Your task to perform on an android device: View the shopping cart on costco. Search for dell alienware on costco, select the first entry, add it to the cart, then select checkout. Image 0: 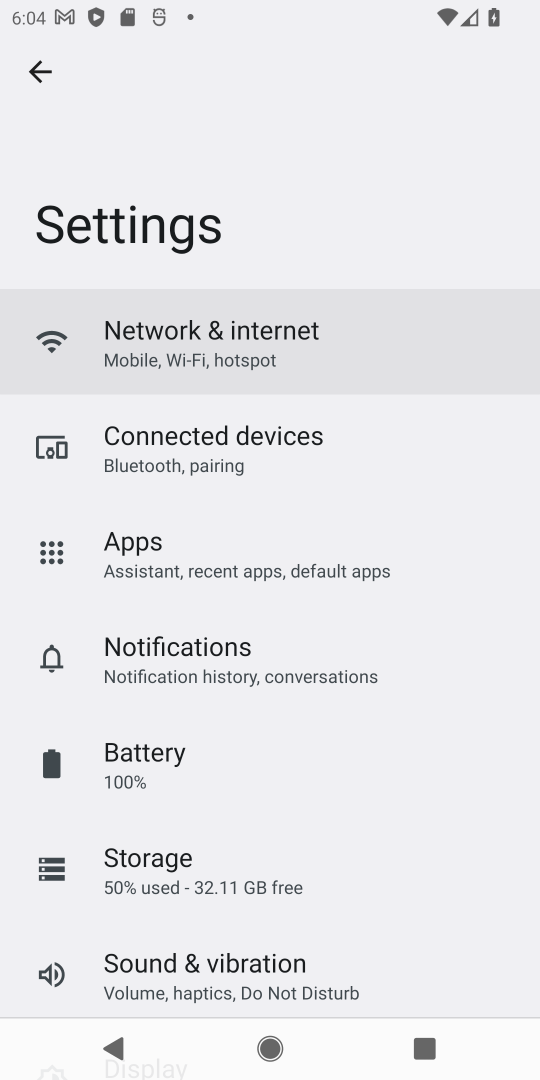
Step 0: press home button
Your task to perform on an android device: View the shopping cart on costco. Search for dell alienware on costco, select the first entry, add it to the cart, then select checkout. Image 1: 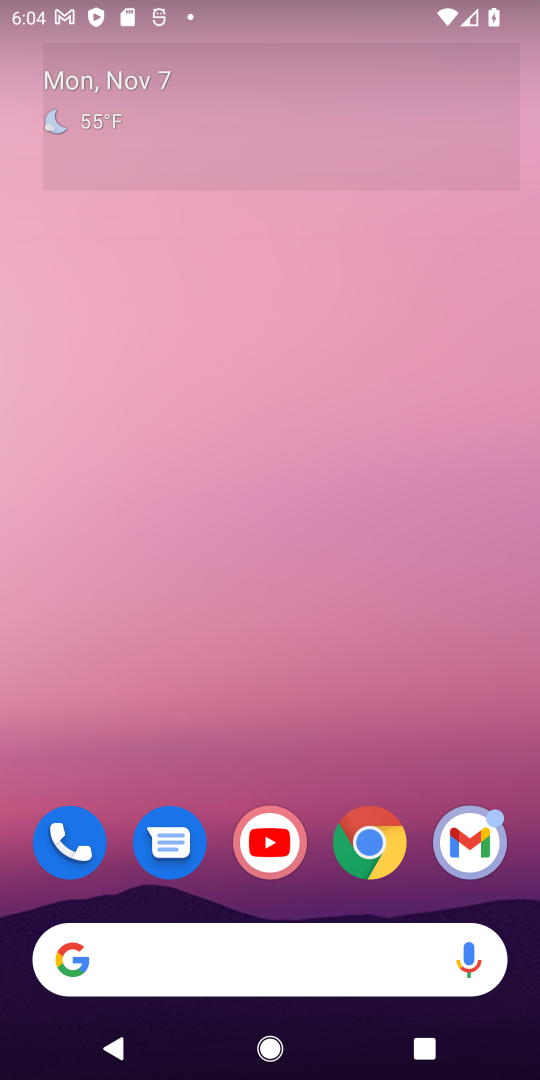
Step 1: click (363, 839)
Your task to perform on an android device: View the shopping cart on costco. Search for dell alienware on costco, select the first entry, add it to the cart, then select checkout. Image 2: 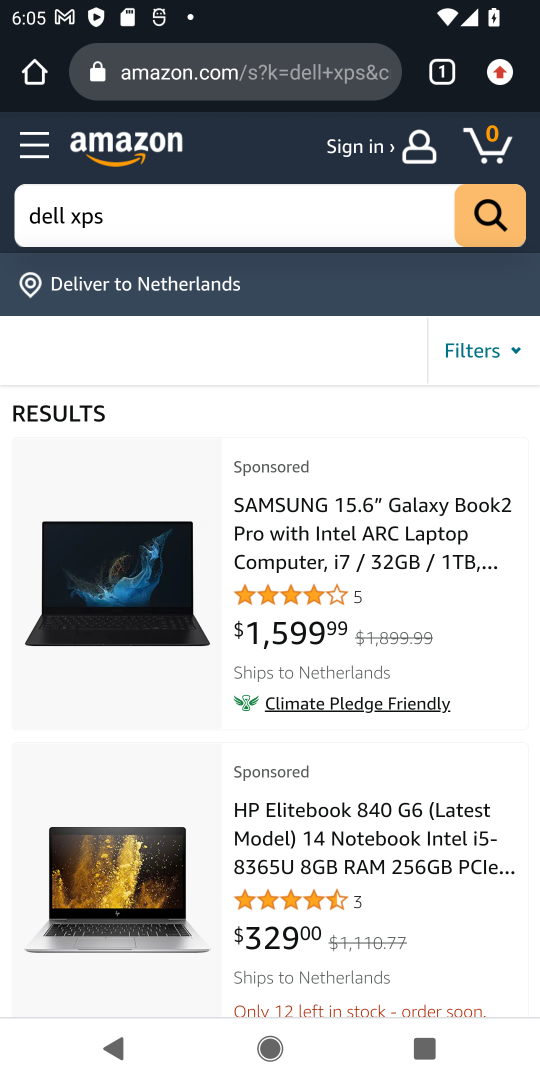
Step 2: click (279, 77)
Your task to perform on an android device: View the shopping cart on costco. Search for dell alienware on costco, select the first entry, add it to the cart, then select checkout. Image 3: 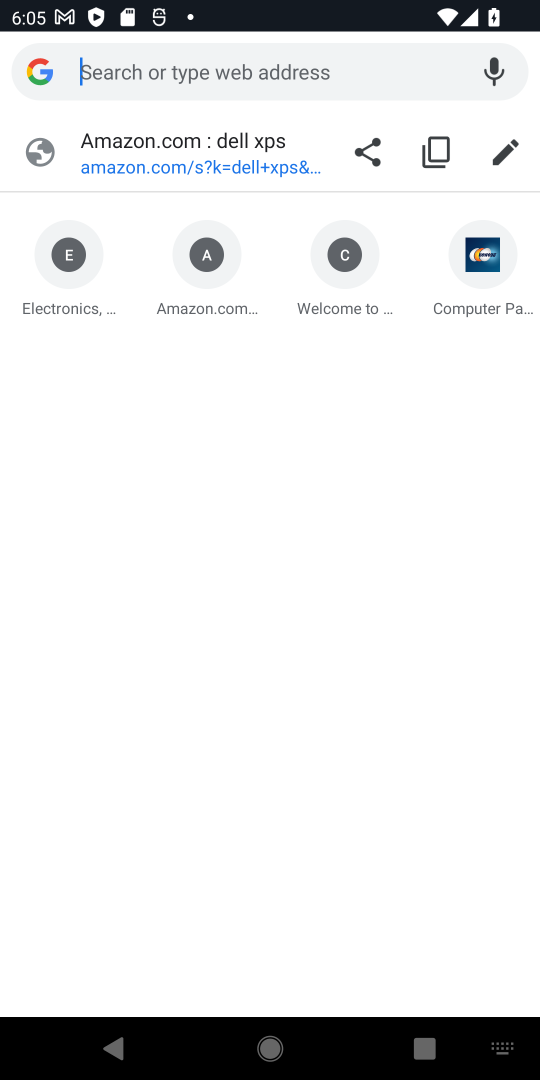
Step 3: type "costco"
Your task to perform on an android device: View the shopping cart on costco. Search for dell alienware on costco, select the first entry, add it to the cart, then select checkout. Image 4: 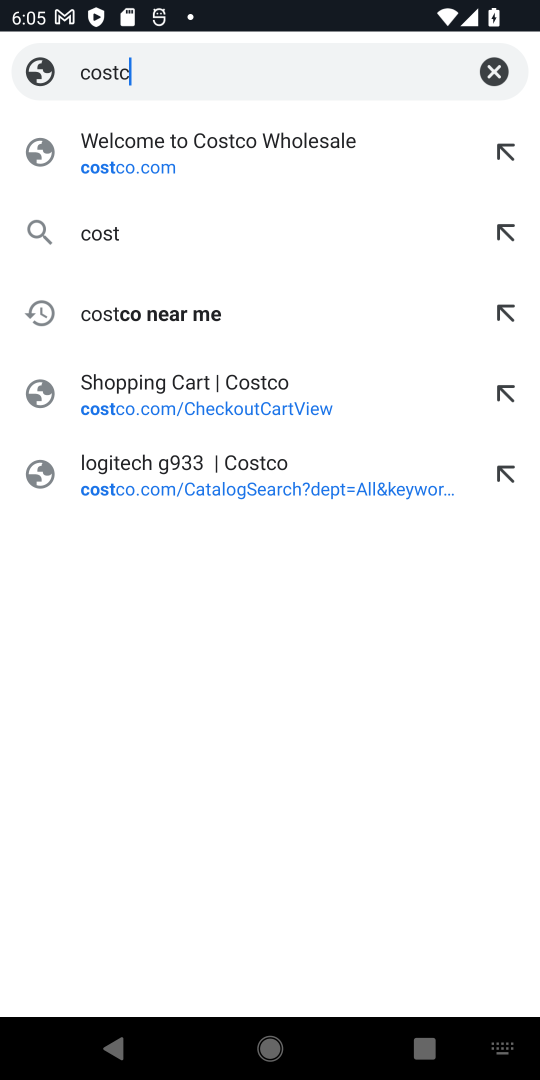
Step 4: press enter
Your task to perform on an android device: View the shopping cart on costco. Search for dell alienware on costco, select the first entry, add it to the cart, then select checkout. Image 5: 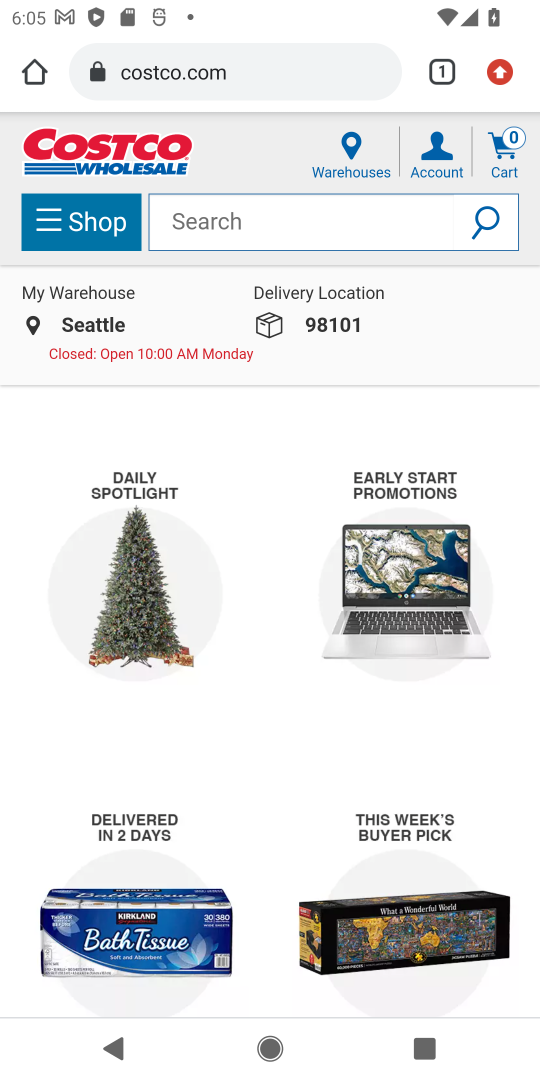
Step 5: click (236, 226)
Your task to perform on an android device: View the shopping cart on costco. Search for dell alienware on costco, select the first entry, add it to the cart, then select checkout. Image 6: 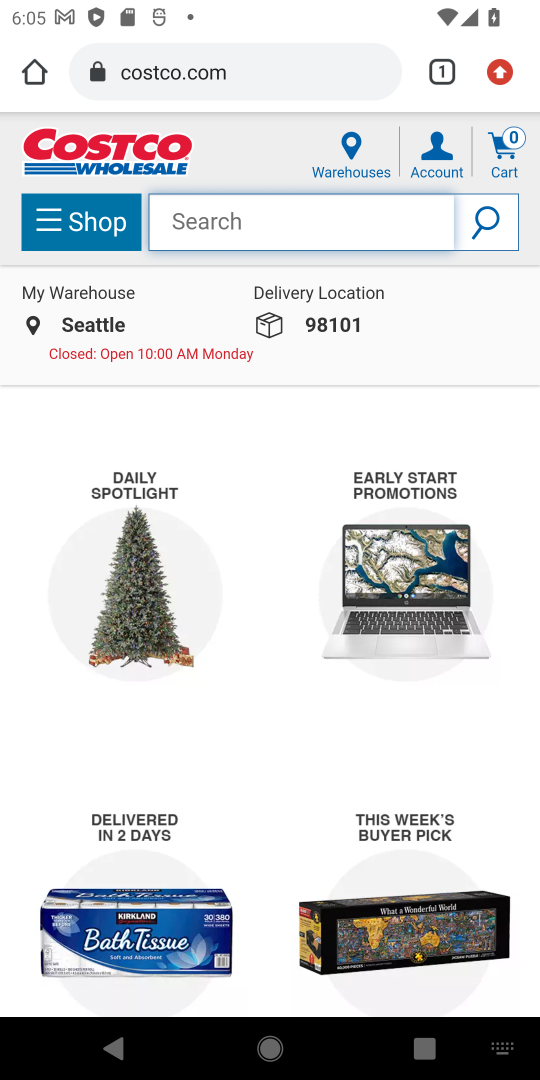
Step 6: type " dell alienware"
Your task to perform on an android device: View the shopping cart on costco. Search for dell alienware on costco, select the first entry, add it to the cart, then select checkout. Image 7: 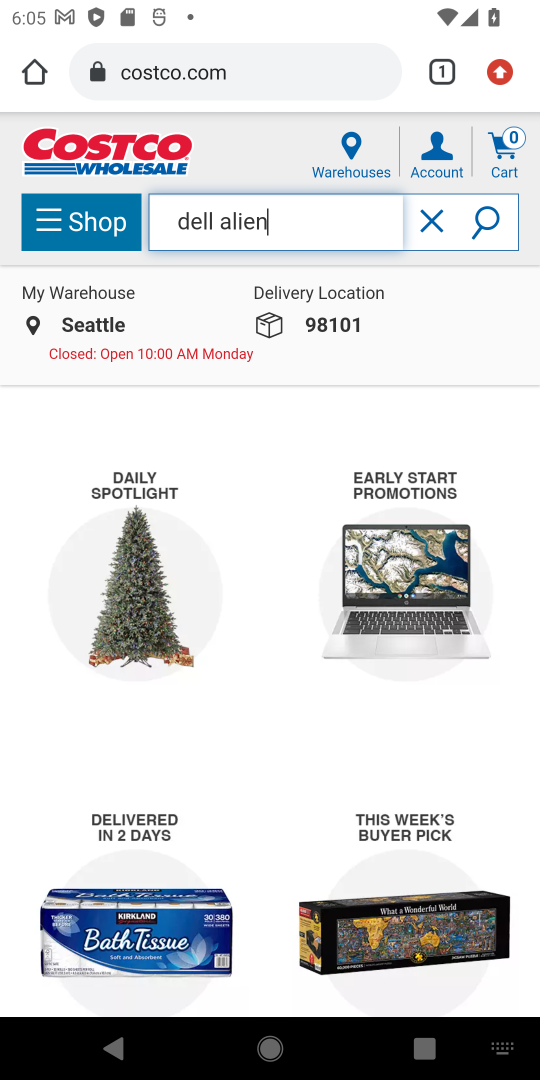
Step 7: press enter
Your task to perform on an android device: View the shopping cart on costco. Search for dell alienware on costco, select the first entry, add it to the cart, then select checkout. Image 8: 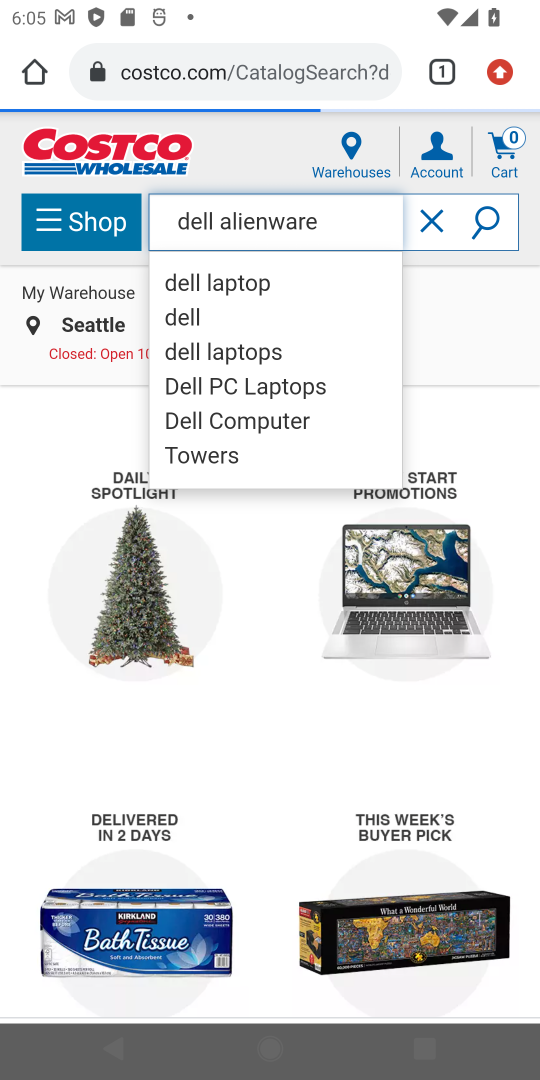
Step 8: press enter
Your task to perform on an android device: View the shopping cart on costco. Search for dell alienware on costco, select the first entry, add it to the cart, then select checkout. Image 9: 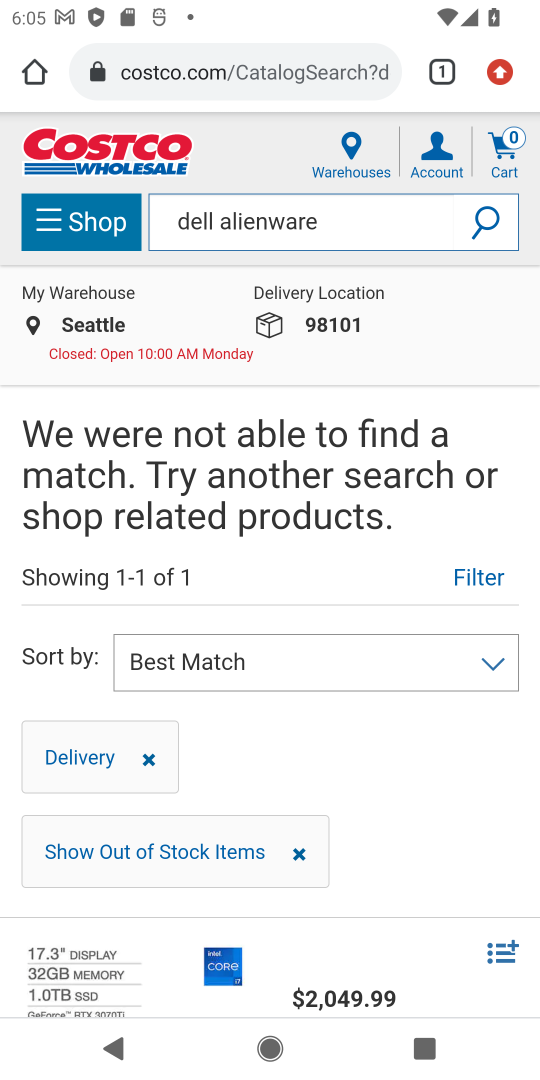
Step 9: task complete